Your task to perform on an android device: Go to location settings Image 0: 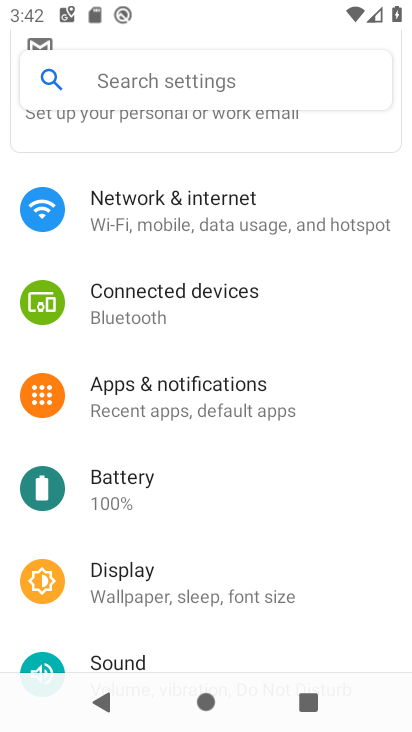
Step 0: drag from (249, 631) to (177, 269)
Your task to perform on an android device: Go to location settings Image 1: 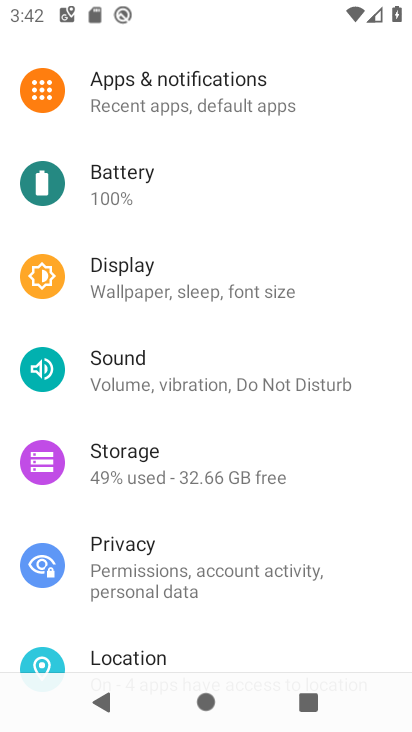
Step 1: drag from (199, 610) to (153, 373)
Your task to perform on an android device: Go to location settings Image 2: 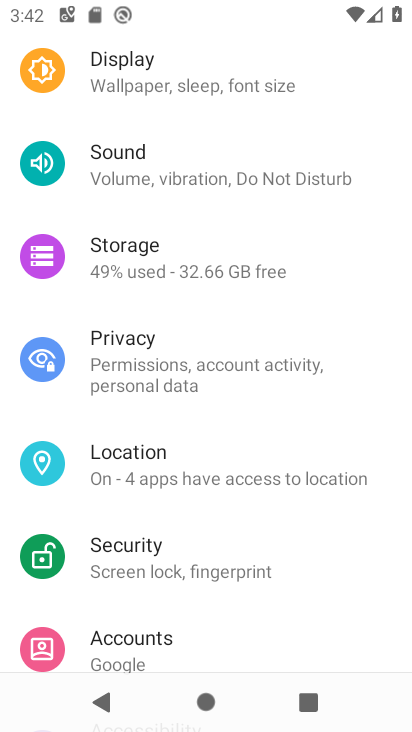
Step 2: click (191, 477)
Your task to perform on an android device: Go to location settings Image 3: 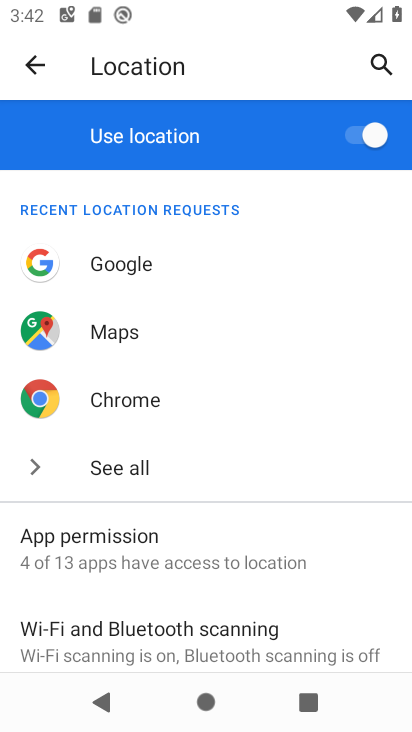
Step 3: task complete